Your task to perform on an android device: search for starred emails in the gmail app Image 0: 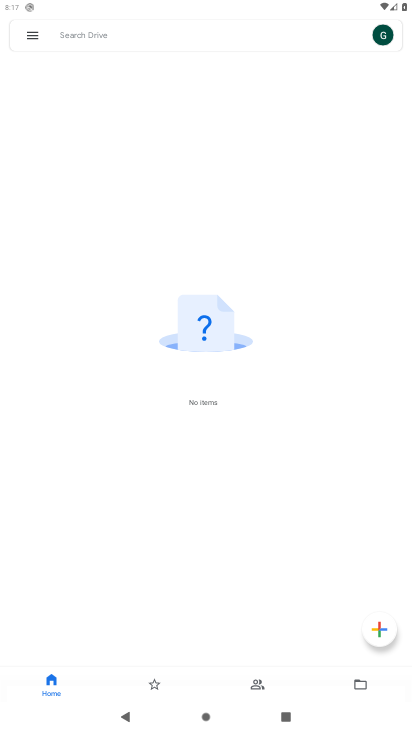
Step 0: press home button
Your task to perform on an android device: search for starred emails in the gmail app Image 1: 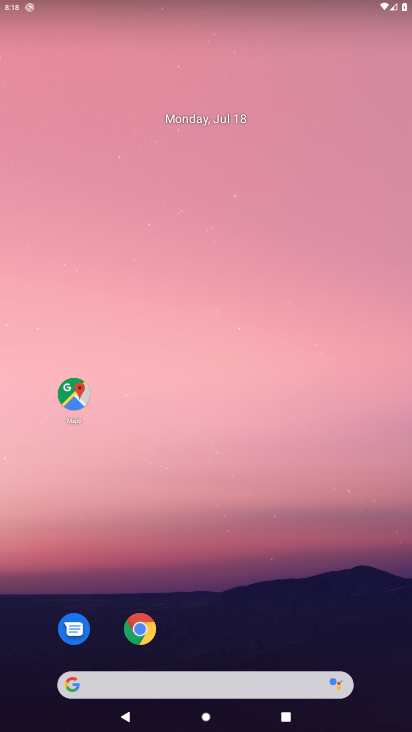
Step 1: drag from (20, 572) to (281, 35)
Your task to perform on an android device: search for starred emails in the gmail app Image 2: 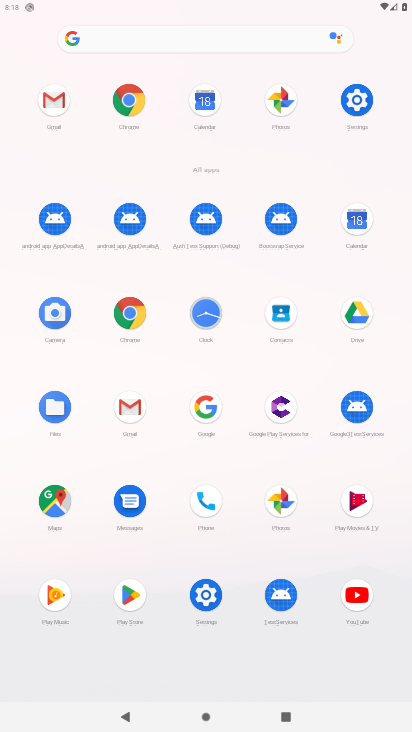
Step 2: click (67, 107)
Your task to perform on an android device: search for starred emails in the gmail app Image 3: 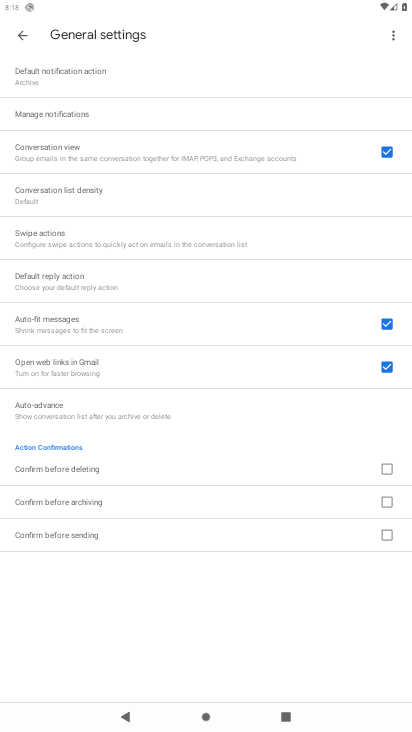
Step 3: click (17, 34)
Your task to perform on an android device: search for starred emails in the gmail app Image 4: 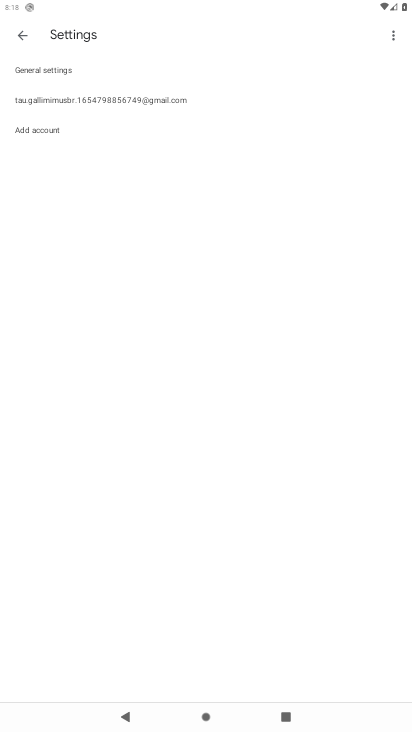
Step 4: click (18, 34)
Your task to perform on an android device: search for starred emails in the gmail app Image 5: 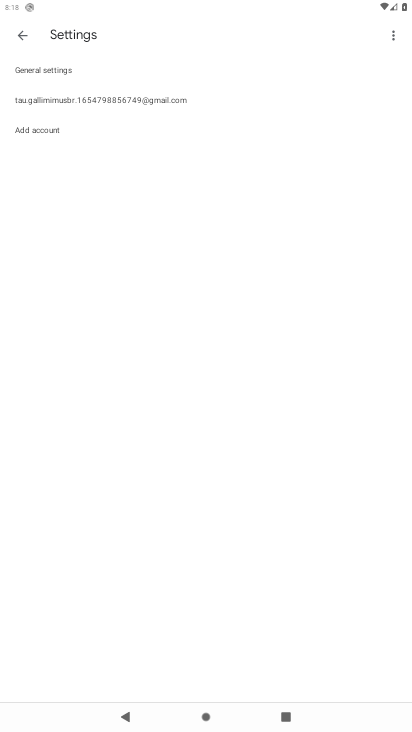
Step 5: click (18, 34)
Your task to perform on an android device: search for starred emails in the gmail app Image 6: 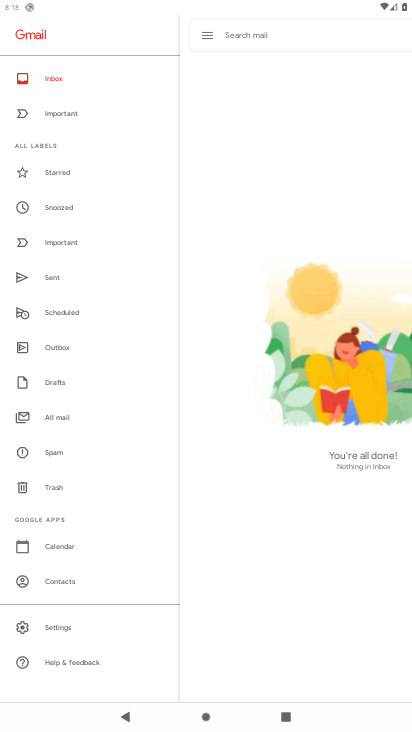
Step 6: click (90, 177)
Your task to perform on an android device: search for starred emails in the gmail app Image 7: 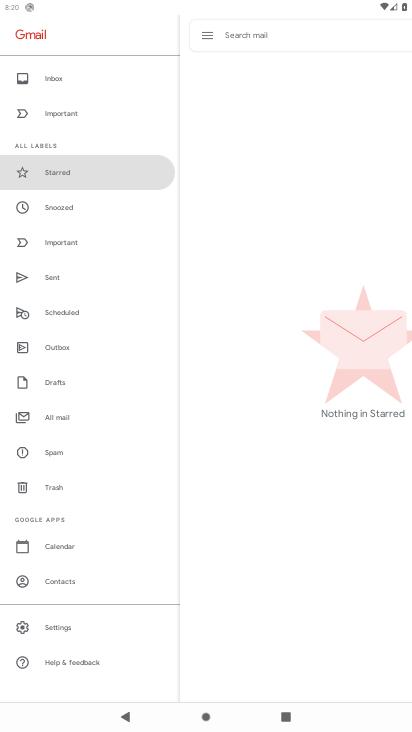
Step 7: task complete